Your task to perform on an android device: toggle notification dots Image 0: 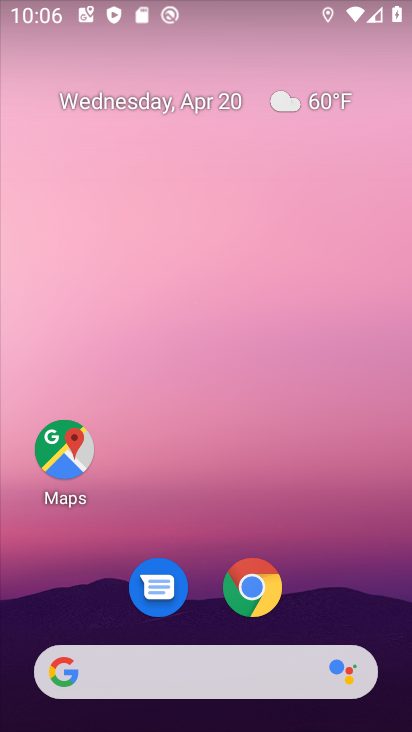
Step 0: drag from (336, 610) to (238, 74)
Your task to perform on an android device: toggle notification dots Image 1: 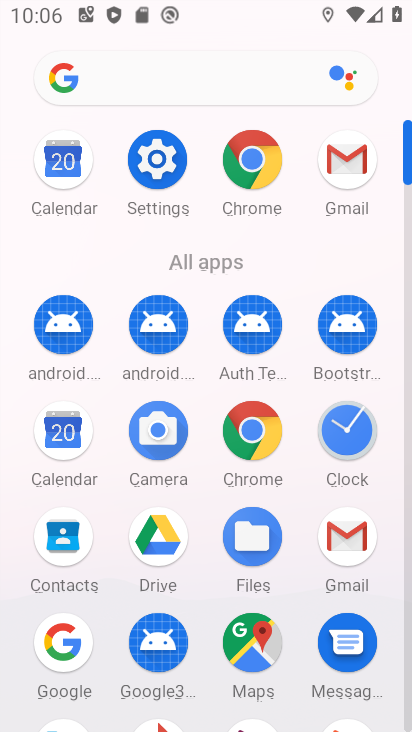
Step 1: click (159, 162)
Your task to perform on an android device: toggle notification dots Image 2: 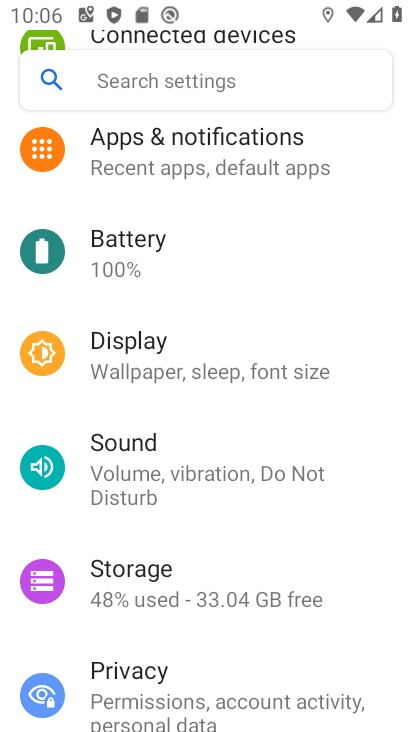
Step 2: click (184, 139)
Your task to perform on an android device: toggle notification dots Image 3: 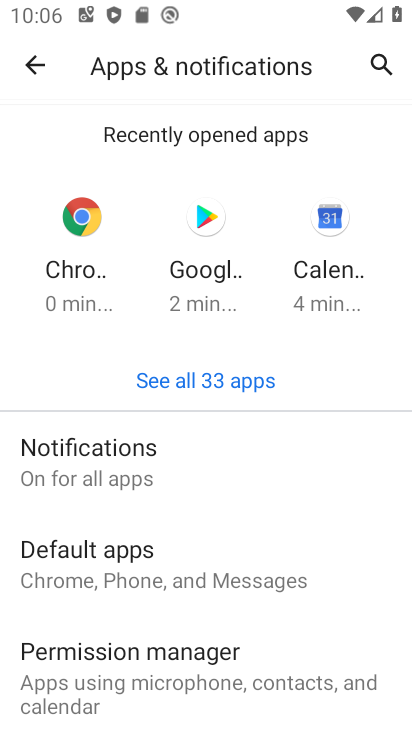
Step 3: click (99, 464)
Your task to perform on an android device: toggle notification dots Image 4: 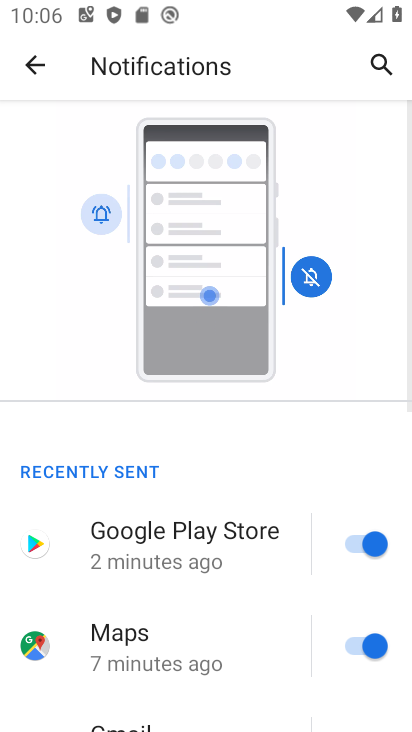
Step 4: drag from (183, 626) to (195, 181)
Your task to perform on an android device: toggle notification dots Image 5: 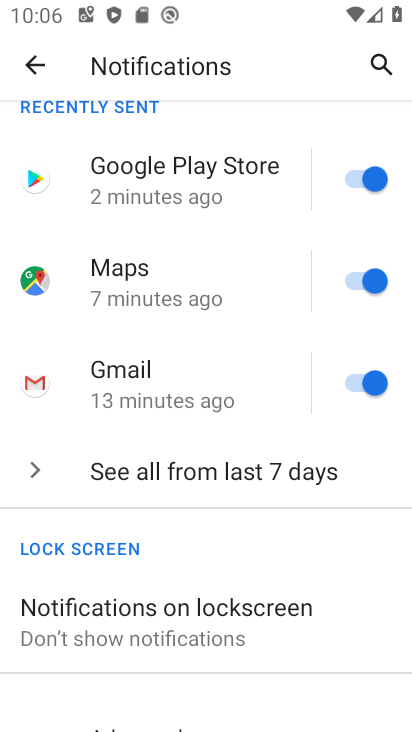
Step 5: drag from (182, 656) to (172, 287)
Your task to perform on an android device: toggle notification dots Image 6: 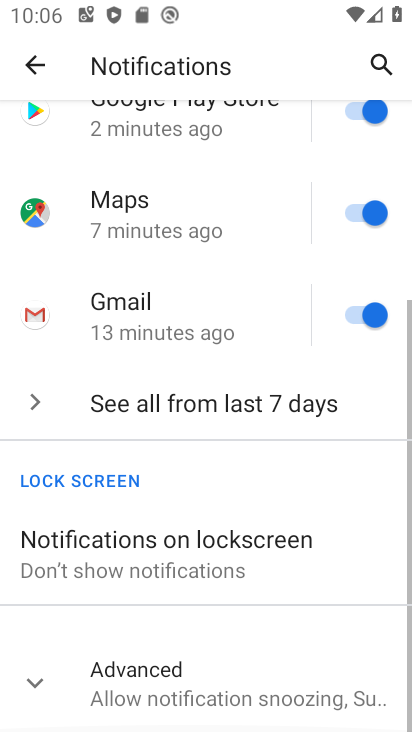
Step 6: click (125, 679)
Your task to perform on an android device: toggle notification dots Image 7: 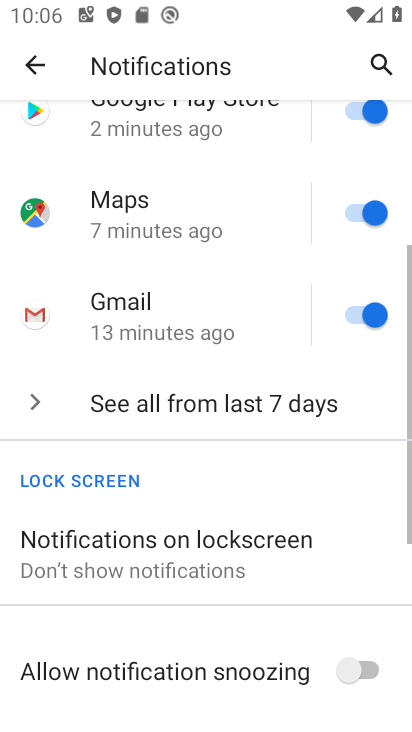
Step 7: drag from (125, 679) to (114, 182)
Your task to perform on an android device: toggle notification dots Image 8: 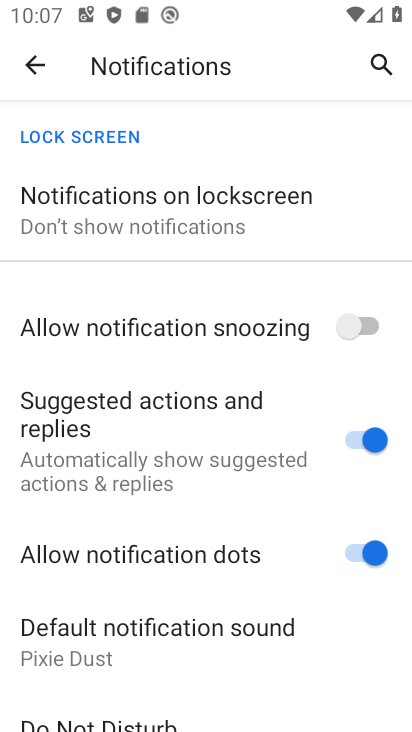
Step 8: click (352, 553)
Your task to perform on an android device: toggle notification dots Image 9: 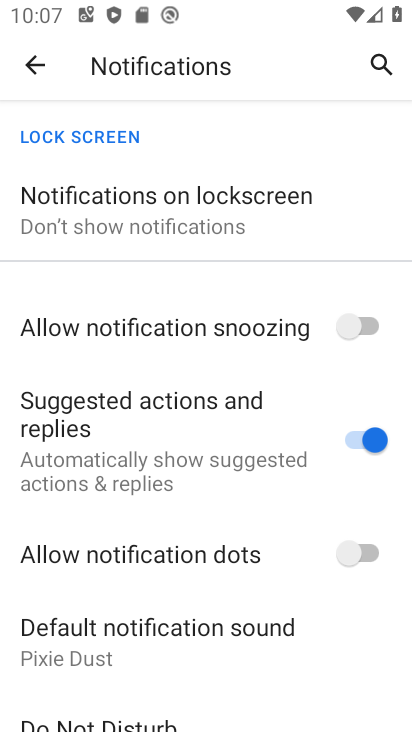
Step 9: task complete